Your task to perform on an android device: refresh tabs in the chrome app Image 0: 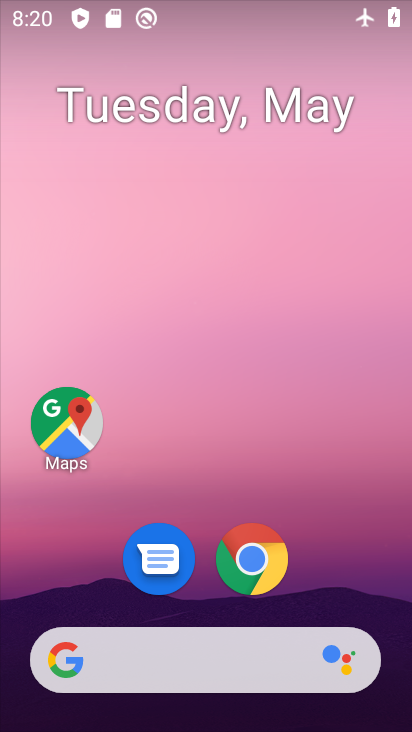
Step 0: click (263, 555)
Your task to perform on an android device: refresh tabs in the chrome app Image 1: 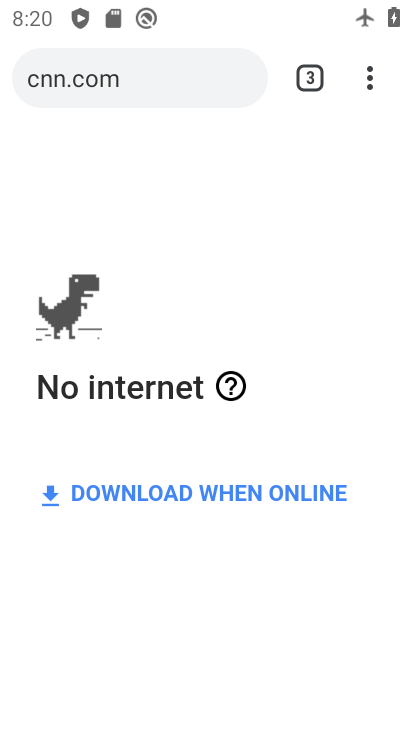
Step 1: click (373, 78)
Your task to perform on an android device: refresh tabs in the chrome app Image 2: 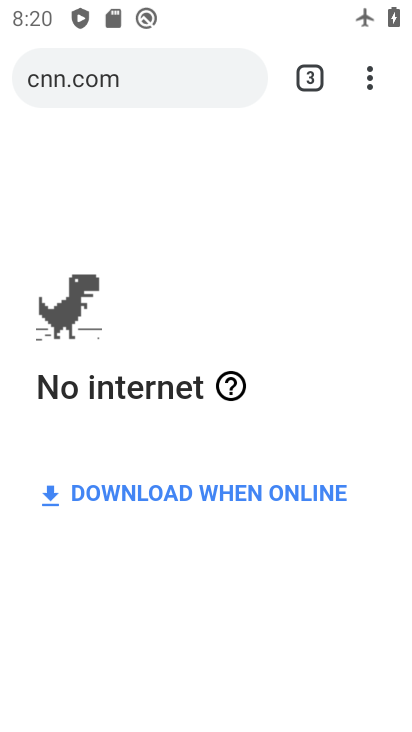
Step 2: click (368, 84)
Your task to perform on an android device: refresh tabs in the chrome app Image 3: 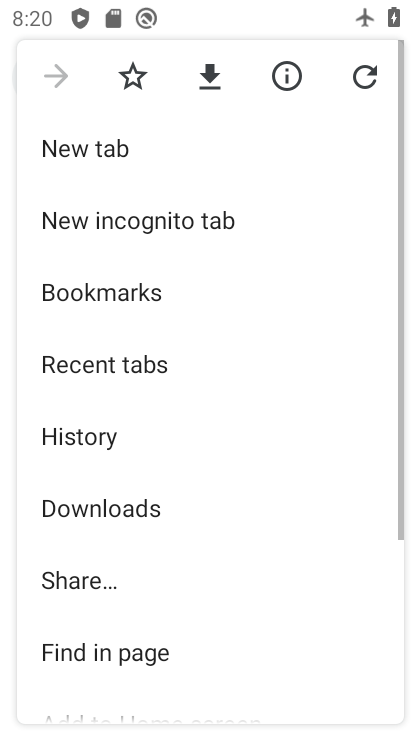
Step 3: click (361, 97)
Your task to perform on an android device: refresh tabs in the chrome app Image 4: 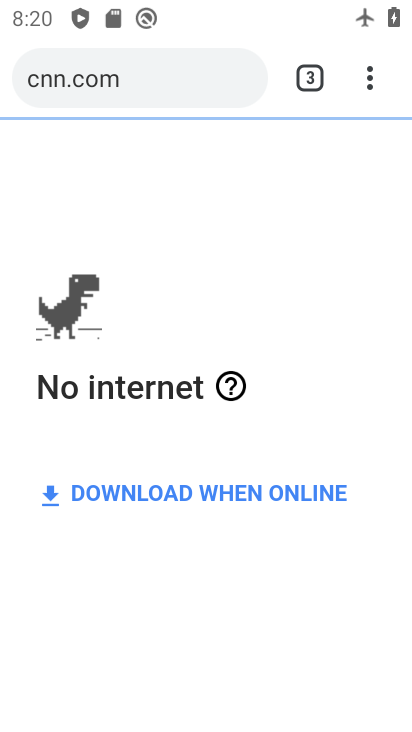
Step 4: click (363, 85)
Your task to perform on an android device: refresh tabs in the chrome app Image 5: 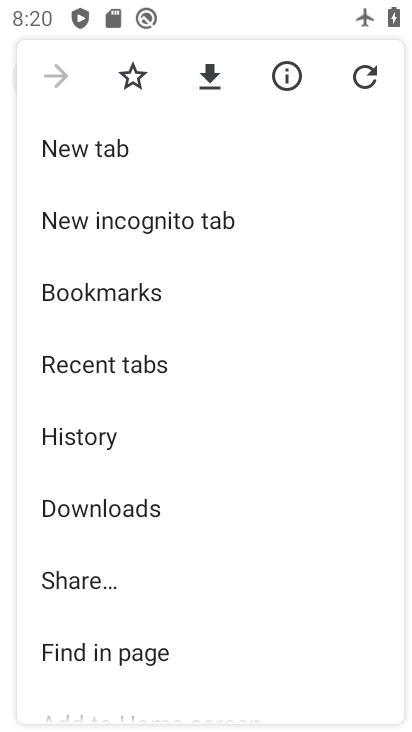
Step 5: click (371, 71)
Your task to perform on an android device: refresh tabs in the chrome app Image 6: 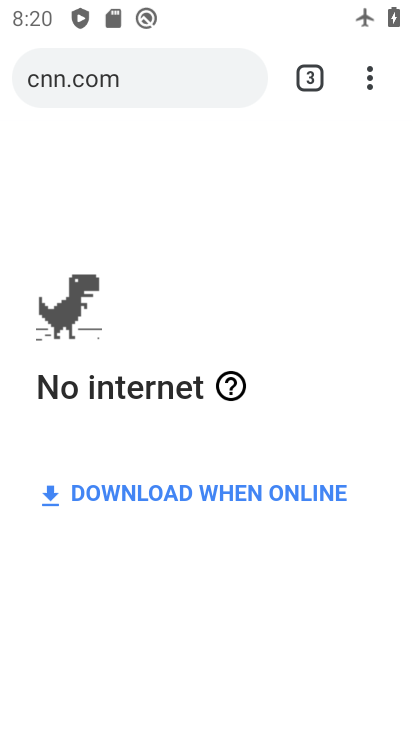
Step 6: task complete